Your task to perform on an android device: turn on bluetooth scan Image 0: 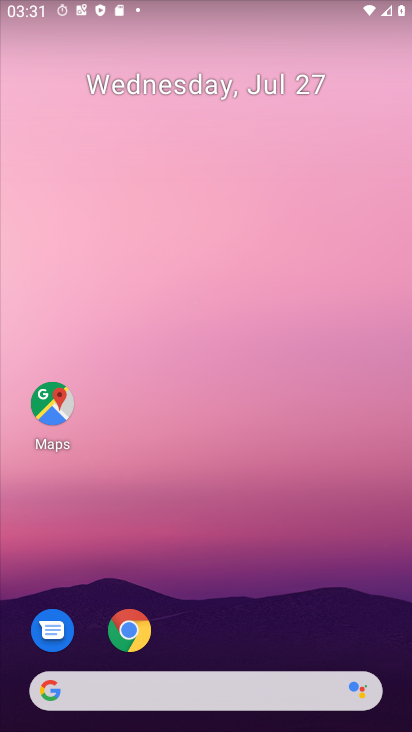
Step 0: click (205, 242)
Your task to perform on an android device: turn on bluetooth scan Image 1: 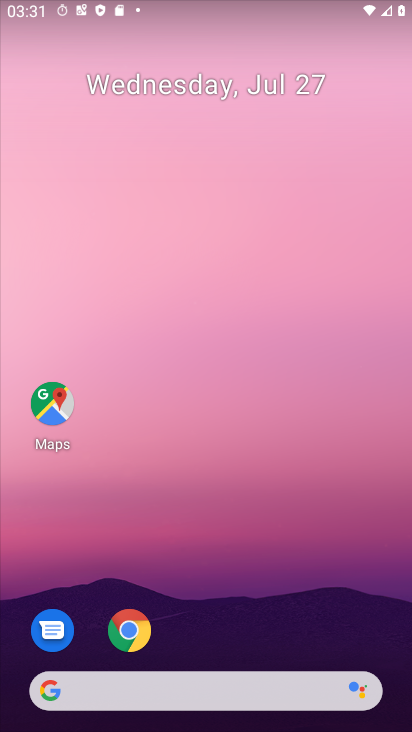
Step 1: click (207, 120)
Your task to perform on an android device: turn on bluetooth scan Image 2: 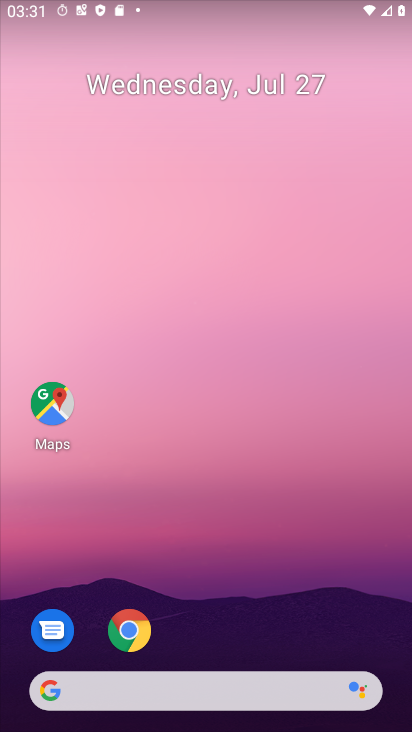
Step 2: drag from (292, 371) to (266, 169)
Your task to perform on an android device: turn on bluetooth scan Image 3: 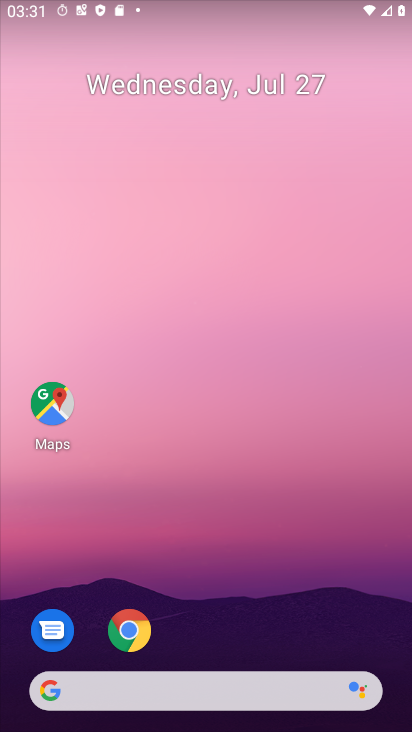
Step 3: drag from (230, 526) to (188, 198)
Your task to perform on an android device: turn on bluetooth scan Image 4: 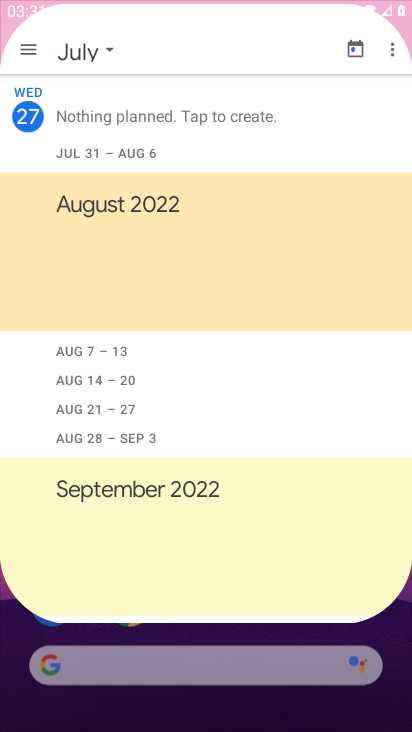
Step 4: drag from (211, 522) to (163, 90)
Your task to perform on an android device: turn on bluetooth scan Image 5: 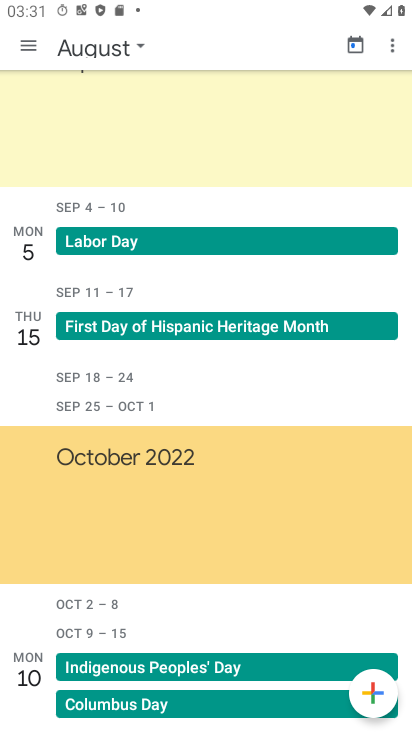
Step 5: drag from (214, 519) to (214, 193)
Your task to perform on an android device: turn on bluetooth scan Image 6: 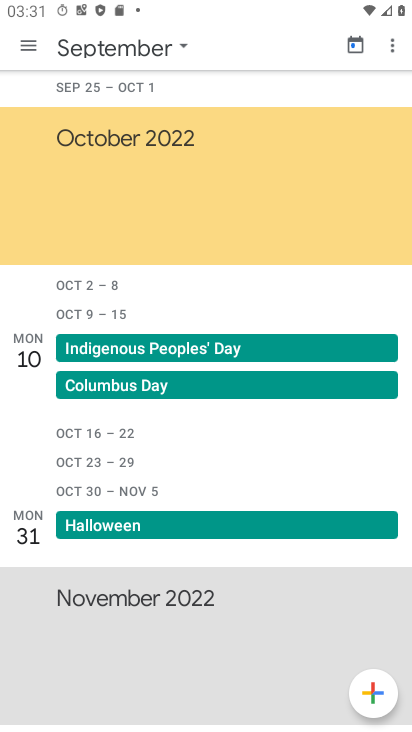
Step 6: press back button
Your task to perform on an android device: turn on bluetooth scan Image 7: 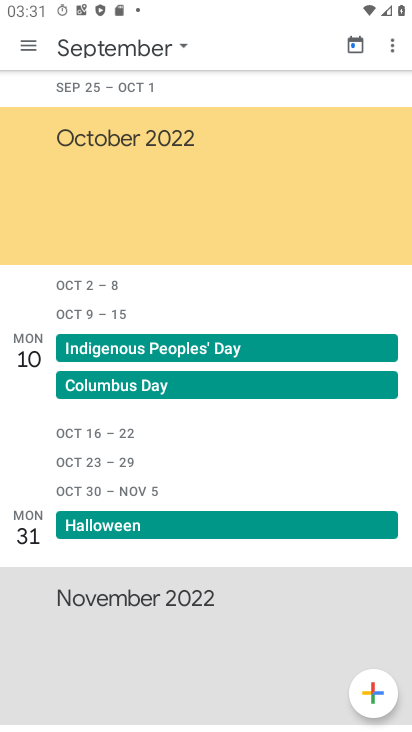
Step 7: press back button
Your task to perform on an android device: turn on bluetooth scan Image 8: 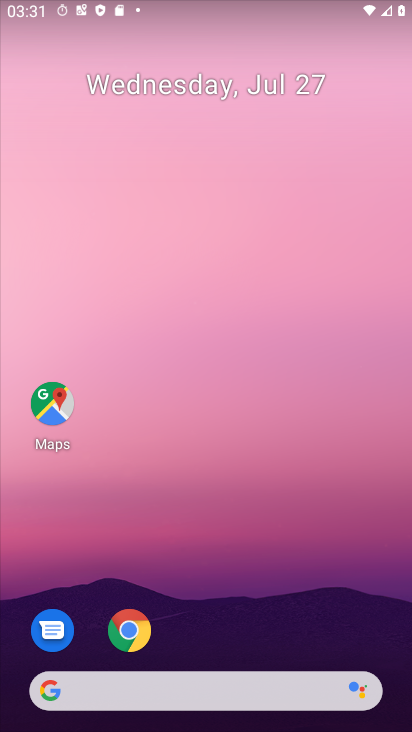
Step 8: drag from (192, 121) to (225, 194)
Your task to perform on an android device: turn on bluetooth scan Image 9: 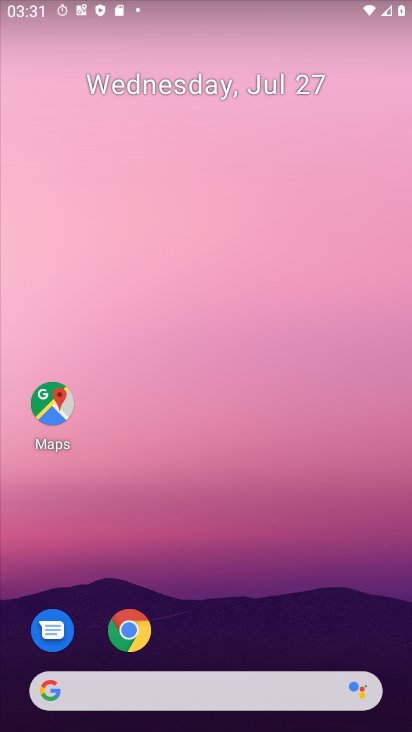
Step 9: drag from (210, 533) to (202, 139)
Your task to perform on an android device: turn on bluetooth scan Image 10: 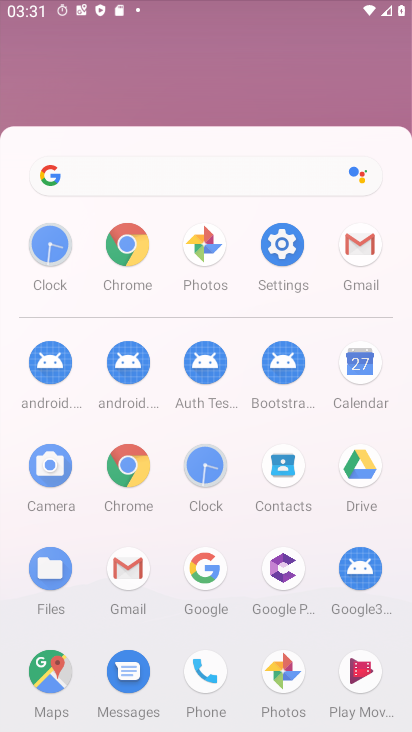
Step 10: drag from (247, 478) to (247, 178)
Your task to perform on an android device: turn on bluetooth scan Image 11: 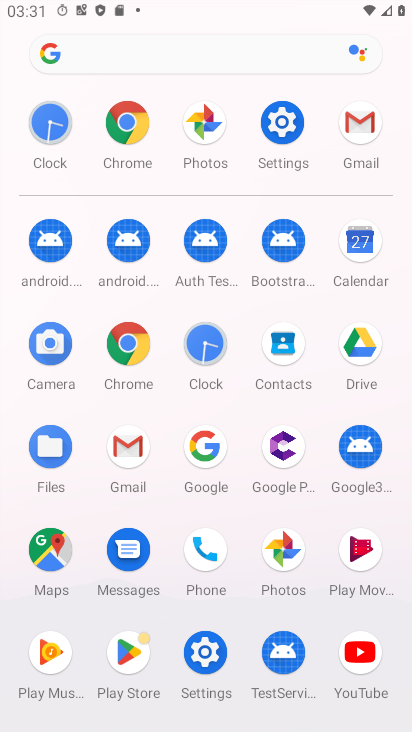
Step 11: click (279, 123)
Your task to perform on an android device: turn on bluetooth scan Image 12: 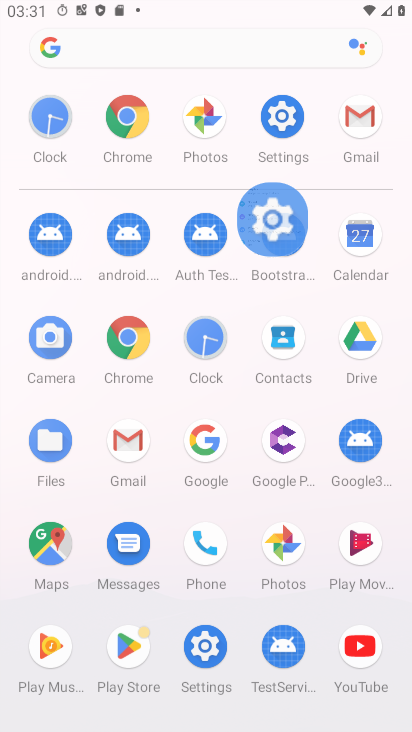
Step 12: click (288, 126)
Your task to perform on an android device: turn on bluetooth scan Image 13: 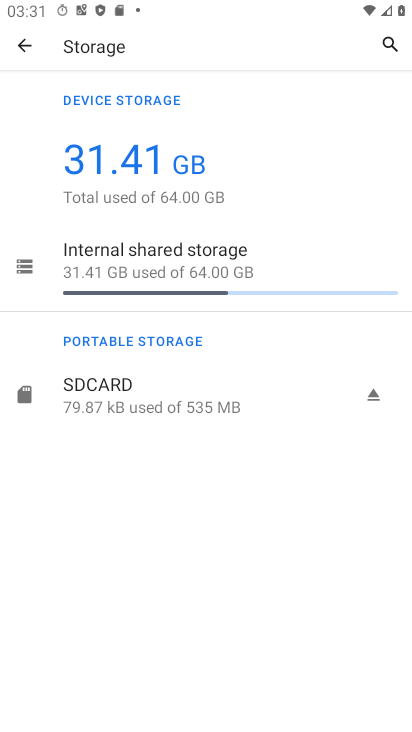
Step 13: click (22, 53)
Your task to perform on an android device: turn on bluetooth scan Image 14: 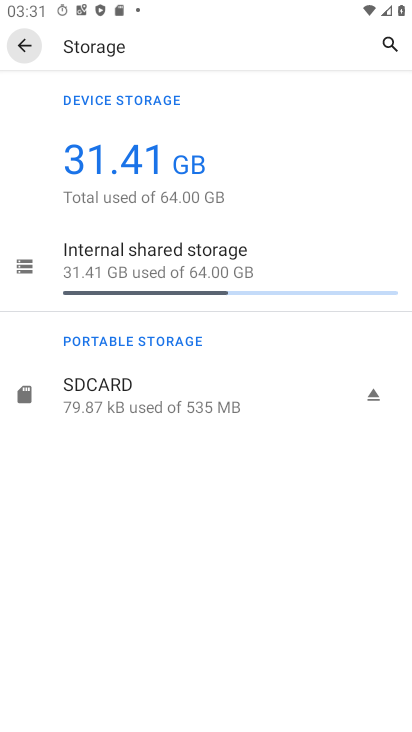
Step 14: click (21, 56)
Your task to perform on an android device: turn on bluetooth scan Image 15: 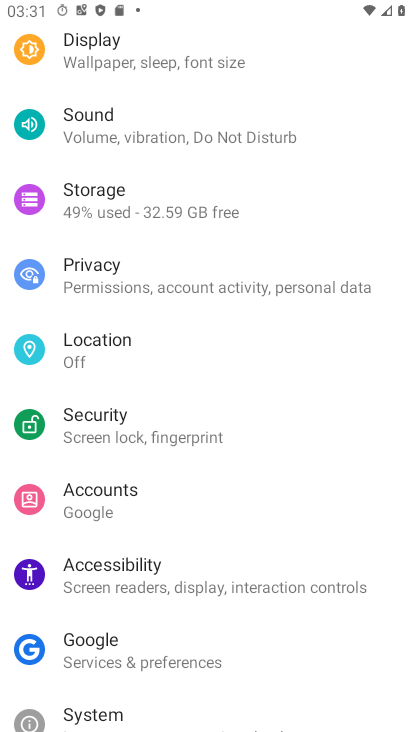
Step 15: click (88, 335)
Your task to perform on an android device: turn on bluetooth scan Image 16: 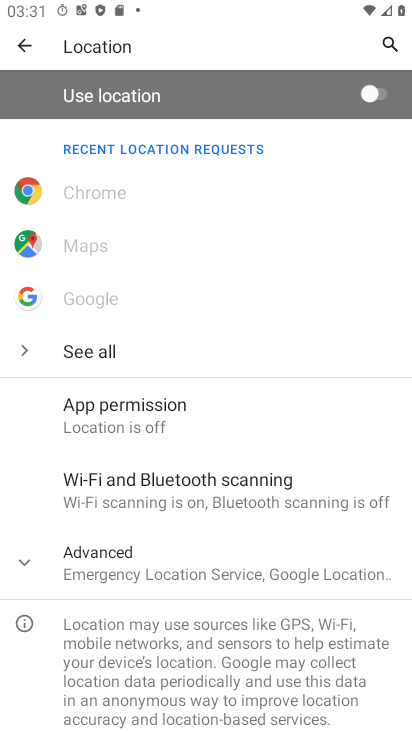
Step 16: click (157, 478)
Your task to perform on an android device: turn on bluetooth scan Image 17: 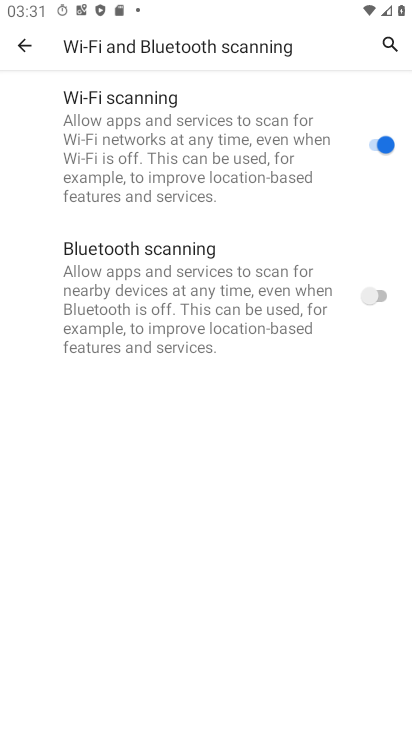
Step 17: click (367, 307)
Your task to perform on an android device: turn on bluetooth scan Image 18: 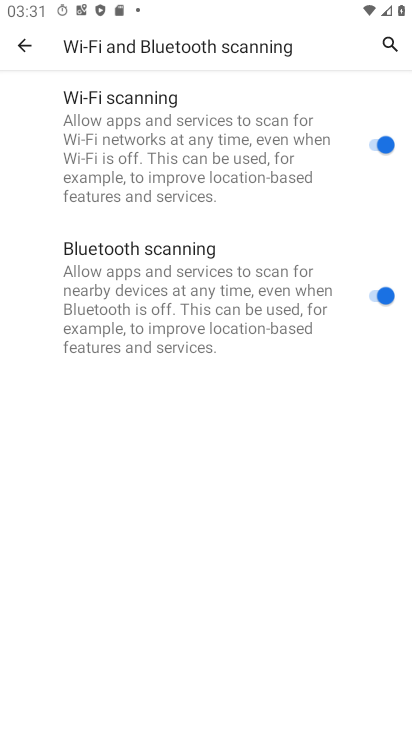
Step 18: task complete